Your task to perform on an android device: Open settings on Google Maps Image 0: 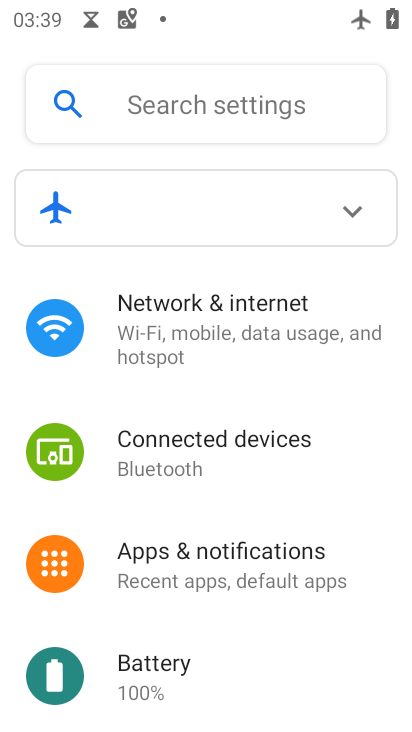
Step 0: press home button
Your task to perform on an android device: Open settings on Google Maps Image 1: 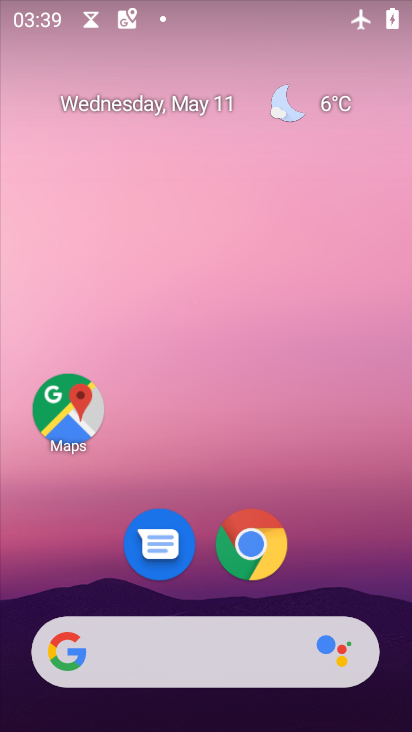
Step 1: click (76, 402)
Your task to perform on an android device: Open settings on Google Maps Image 2: 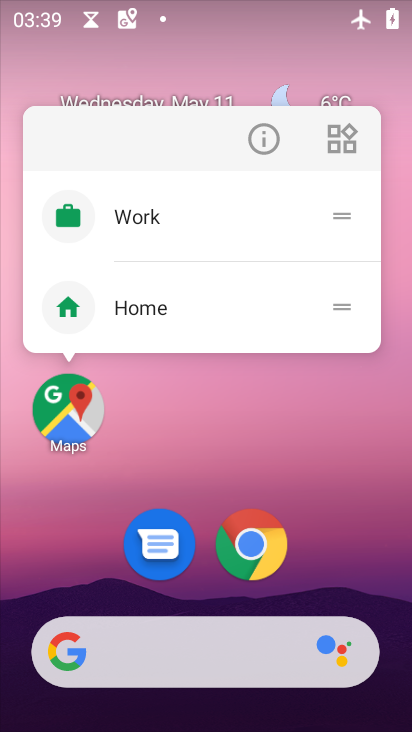
Step 2: click (68, 410)
Your task to perform on an android device: Open settings on Google Maps Image 3: 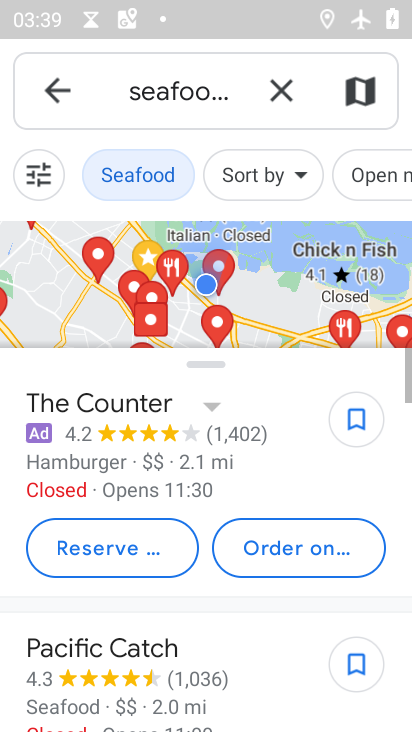
Step 3: click (48, 84)
Your task to perform on an android device: Open settings on Google Maps Image 4: 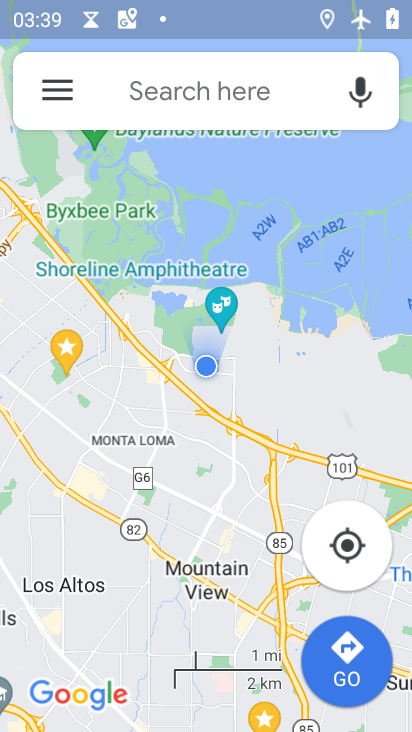
Step 4: click (48, 84)
Your task to perform on an android device: Open settings on Google Maps Image 5: 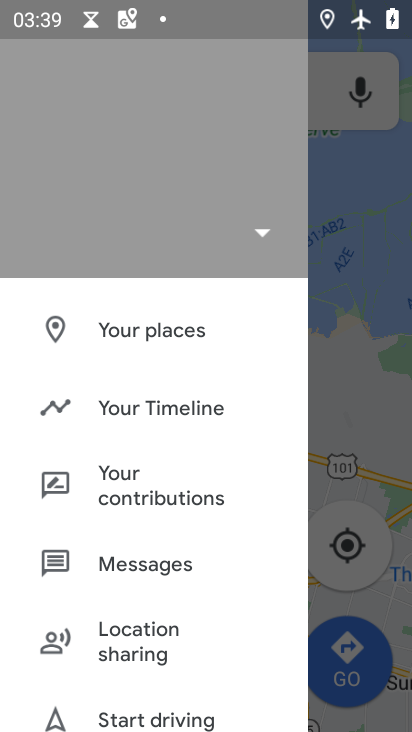
Step 5: drag from (166, 640) to (173, 411)
Your task to perform on an android device: Open settings on Google Maps Image 6: 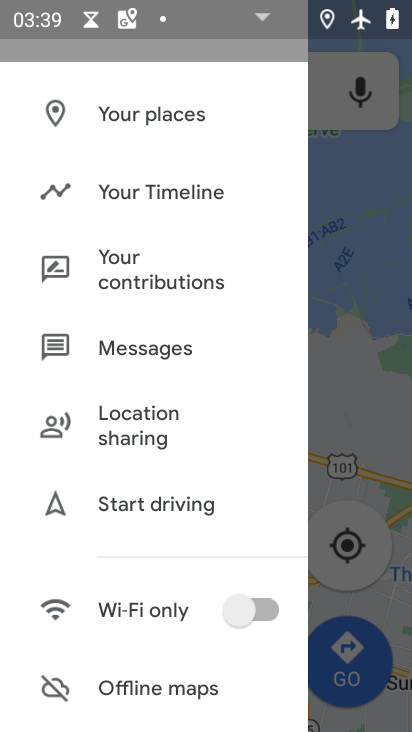
Step 6: drag from (174, 705) to (160, 324)
Your task to perform on an android device: Open settings on Google Maps Image 7: 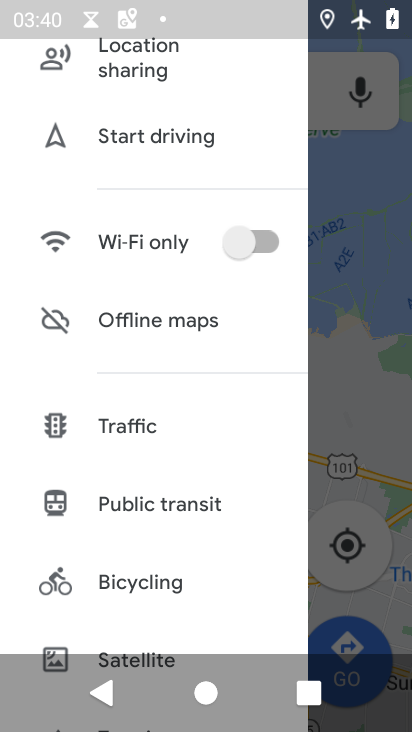
Step 7: drag from (128, 563) to (134, 297)
Your task to perform on an android device: Open settings on Google Maps Image 8: 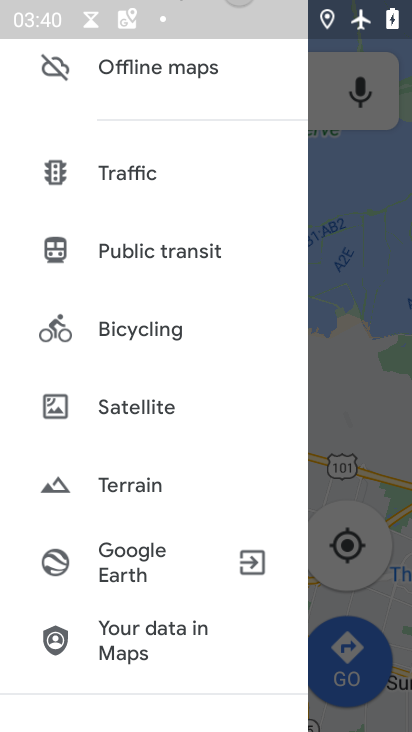
Step 8: drag from (165, 633) to (192, 277)
Your task to perform on an android device: Open settings on Google Maps Image 9: 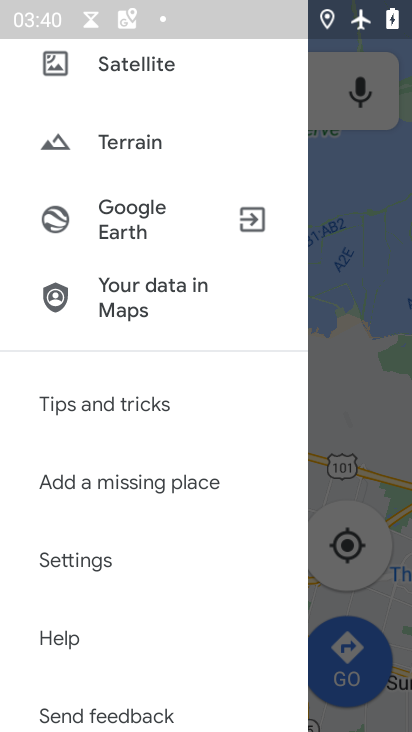
Step 9: click (161, 556)
Your task to perform on an android device: Open settings on Google Maps Image 10: 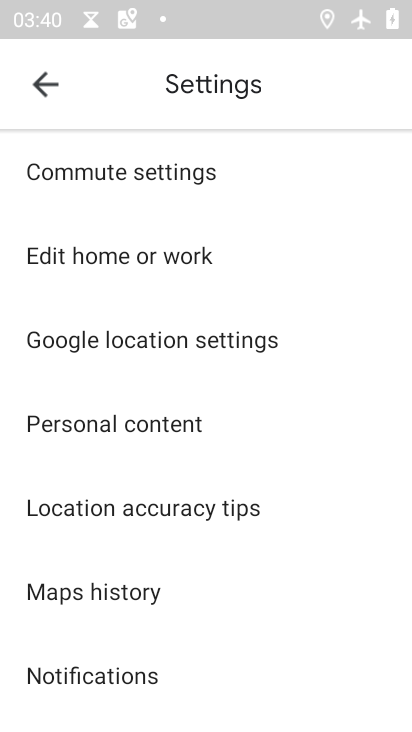
Step 10: task complete